Your task to perform on an android device: Open Google Chrome and click the shortcut for Amazon.com Image 0: 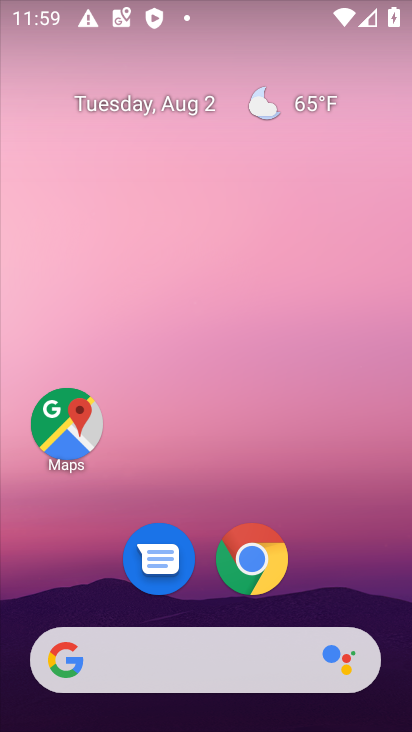
Step 0: click (251, 557)
Your task to perform on an android device: Open Google Chrome and click the shortcut for Amazon.com Image 1: 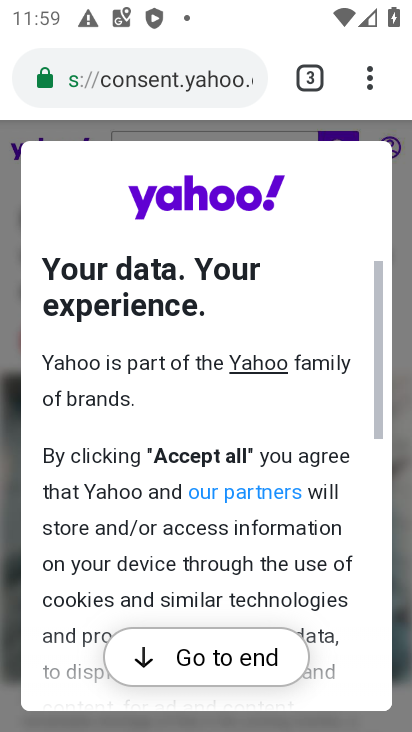
Step 1: click (365, 88)
Your task to perform on an android device: Open Google Chrome and click the shortcut for Amazon.com Image 2: 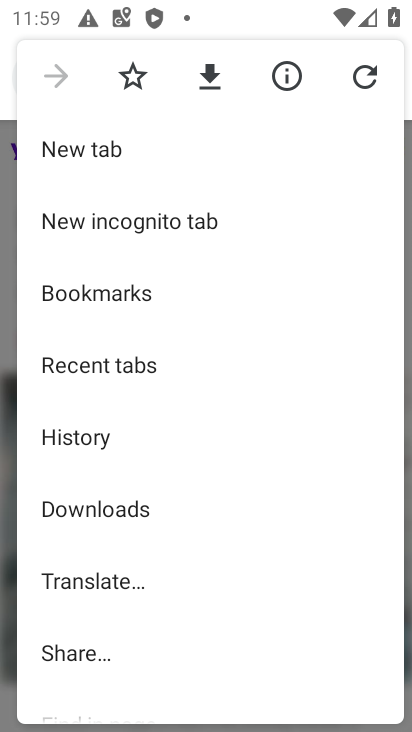
Step 2: click (68, 150)
Your task to perform on an android device: Open Google Chrome and click the shortcut for Amazon.com Image 3: 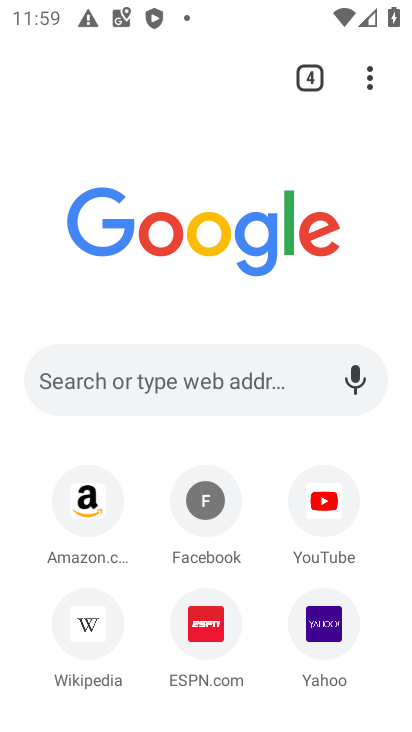
Step 3: click (86, 496)
Your task to perform on an android device: Open Google Chrome and click the shortcut for Amazon.com Image 4: 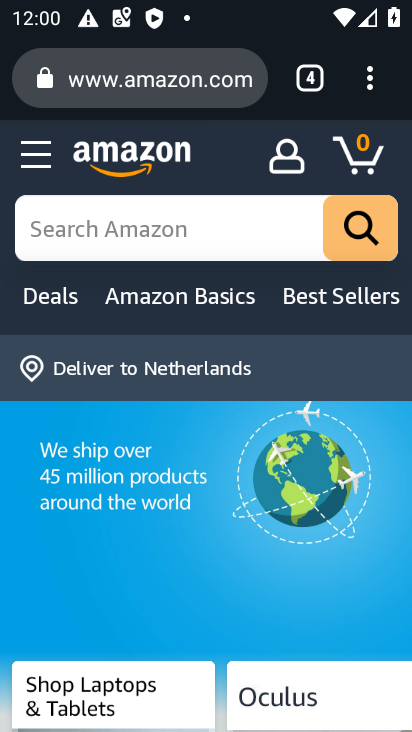
Step 4: task complete